Your task to perform on an android device: check data usage Image 0: 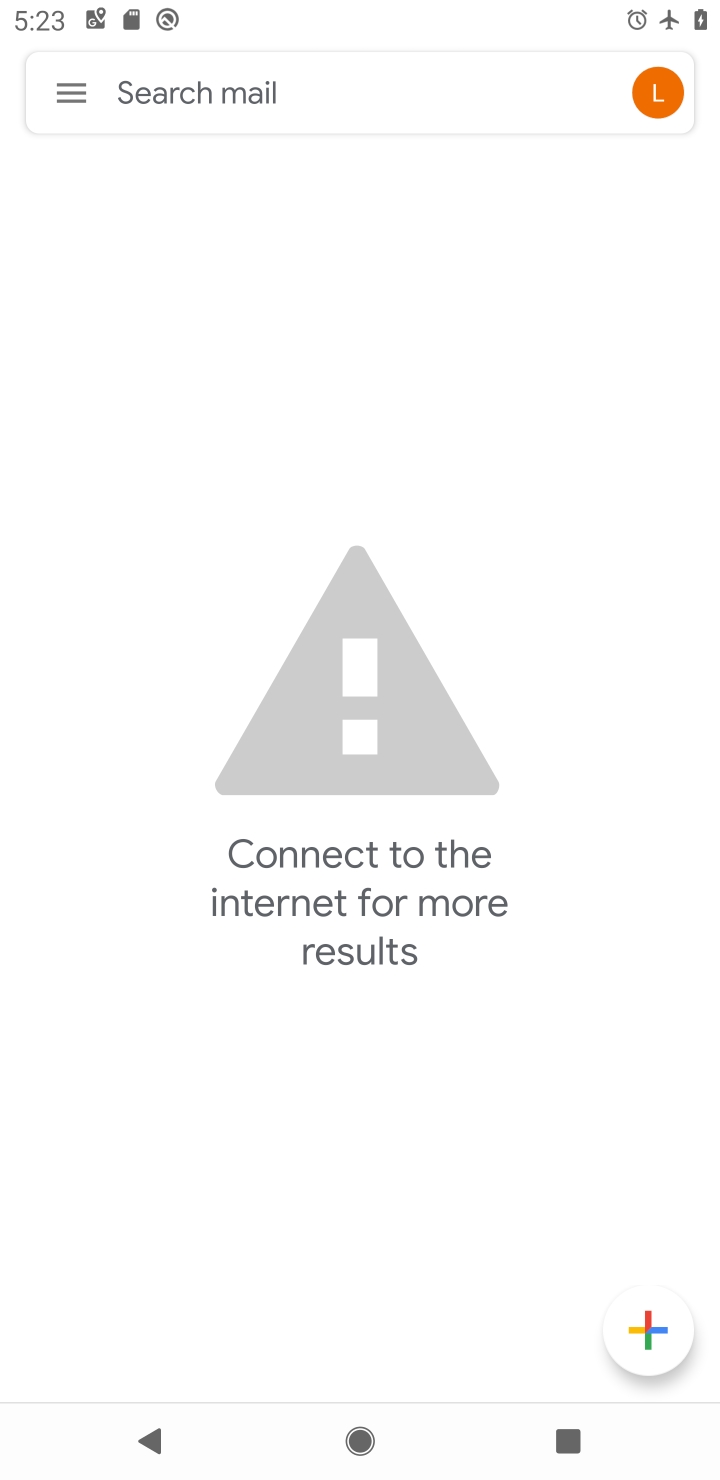
Step 0: press home button
Your task to perform on an android device: check data usage Image 1: 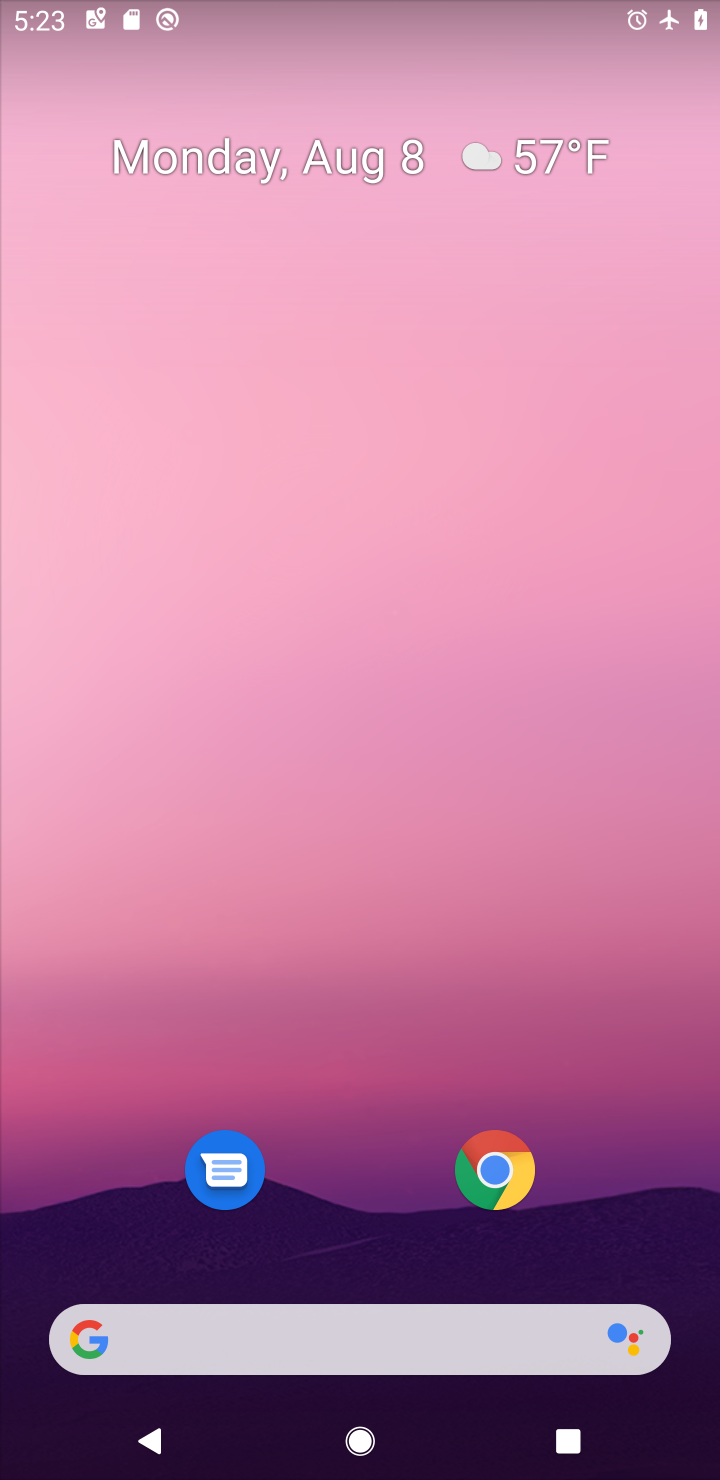
Step 1: drag from (308, 1221) to (331, 390)
Your task to perform on an android device: check data usage Image 2: 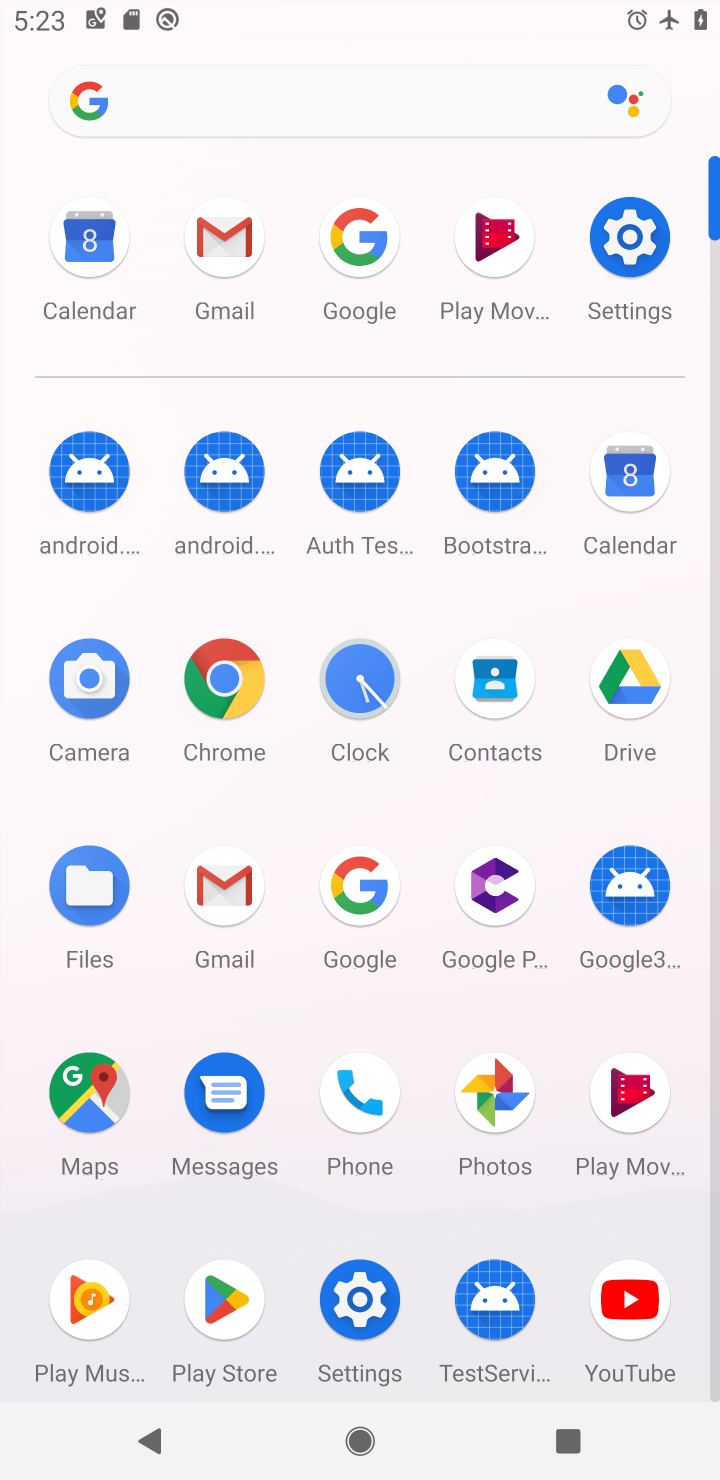
Step 2: click (609, 288)
Your task to perform on an android device: check data usage Image 3: 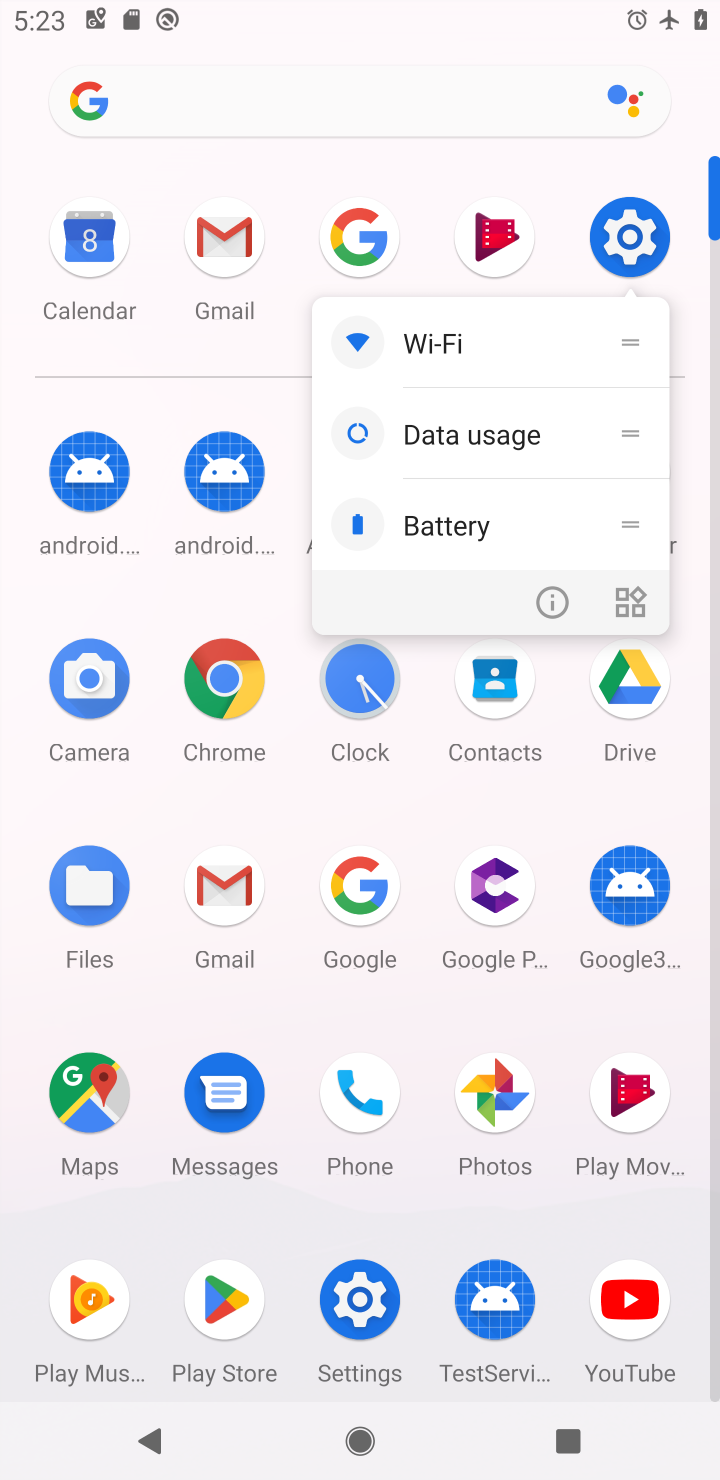
Step 3: click (617, 216)
Your task to perform on an android device: check data usage Image 4: 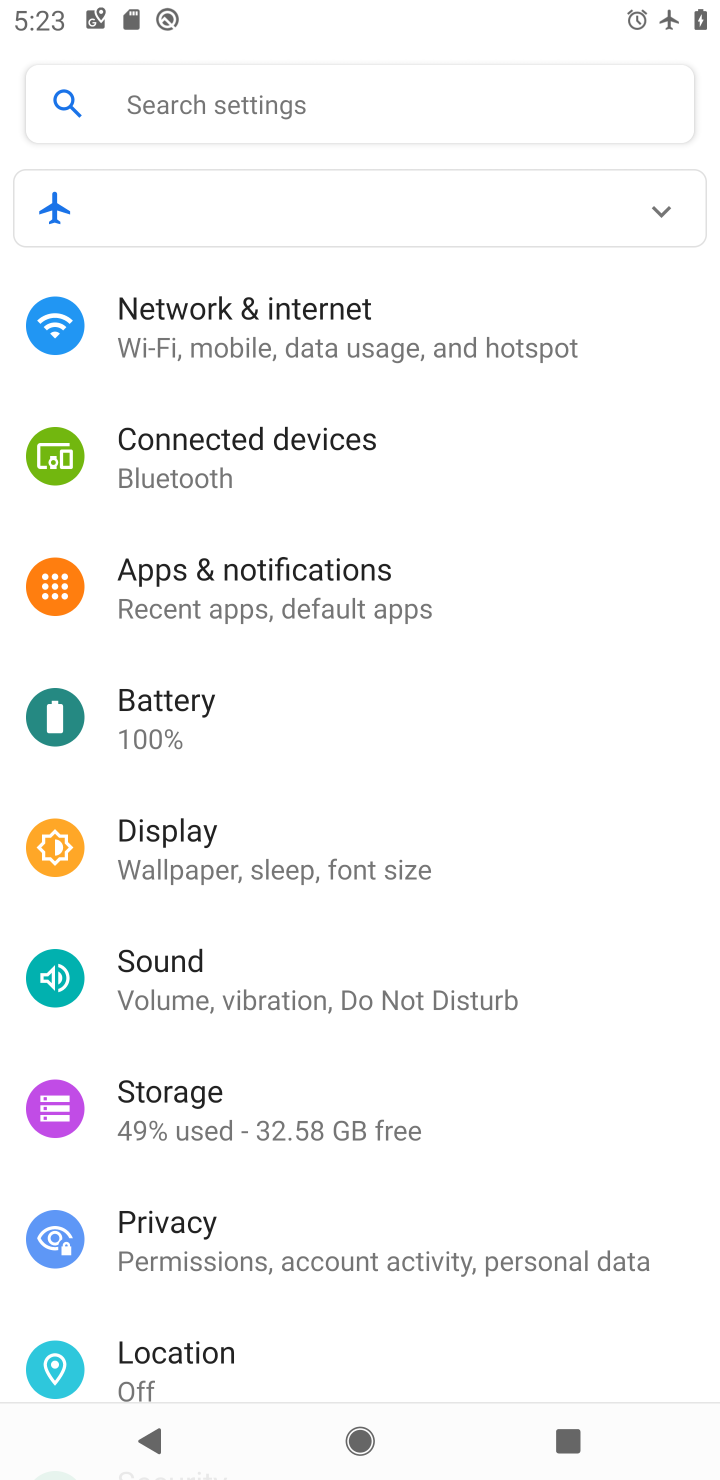
Step 4: click (348, 328)
Your task to perform on an android device: check data usage Image 5: 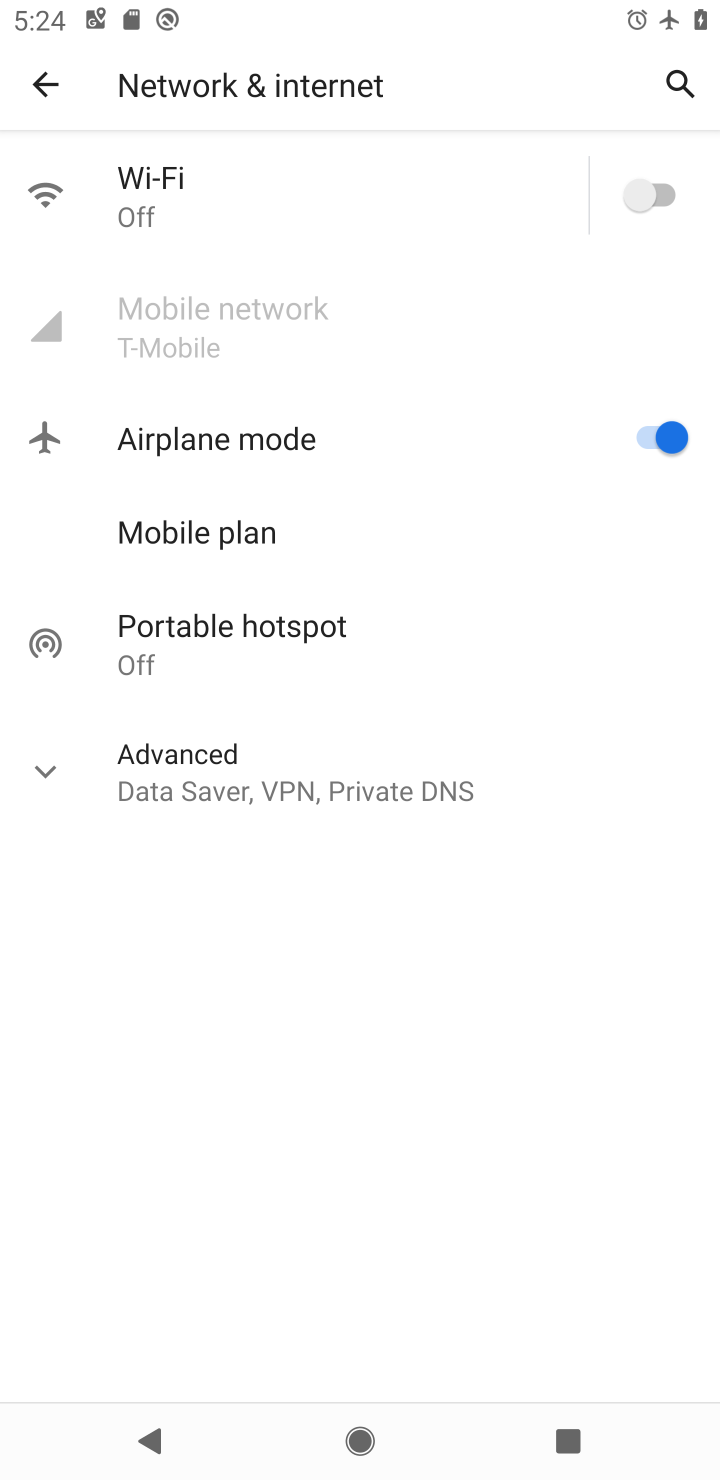
Step 5: click (211, 388)
Your task to perform on an android device: check data usage Image 6: 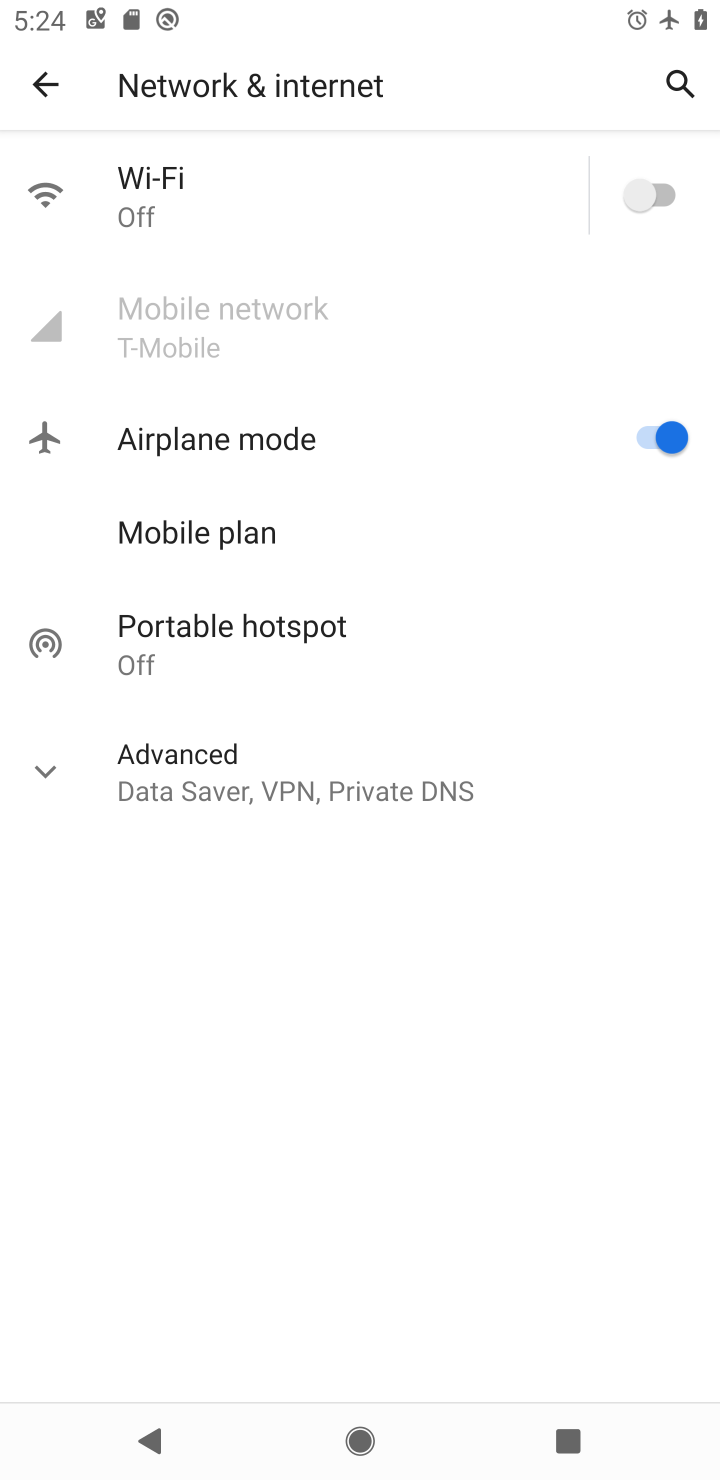
Step 6: task complete